Your task to perform on an android device: turn notification dots off Image 0: 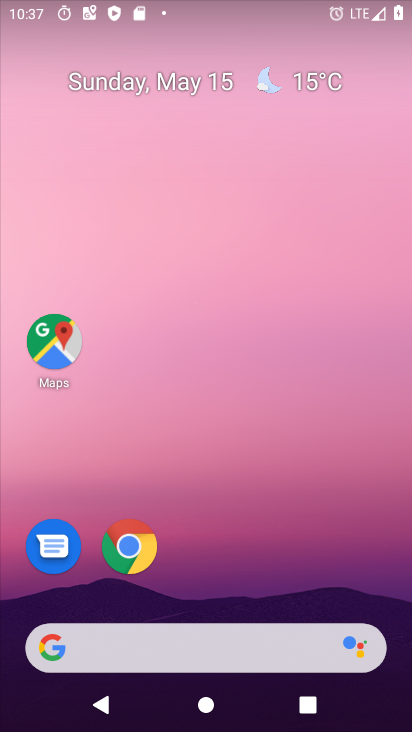
Step 0: drag from (282, 558) to (223, 34)
Your task to perform on an android device: turn notification dots off Image 1: 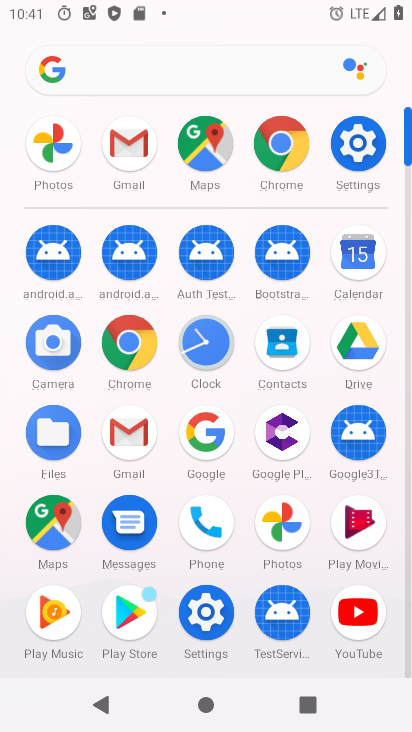
Step 1: click (354, 151)
Your task to perform on an android device: turn notification dots off Image 2: 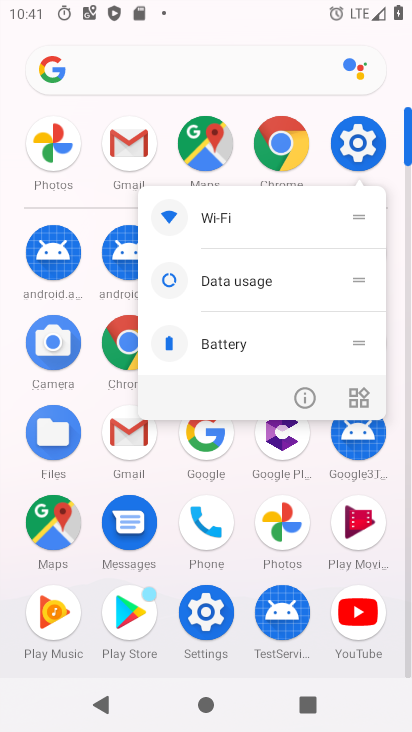
Step 2: click (358, 147)
Your task to perform on an android device: turn notification dots off Image 3: 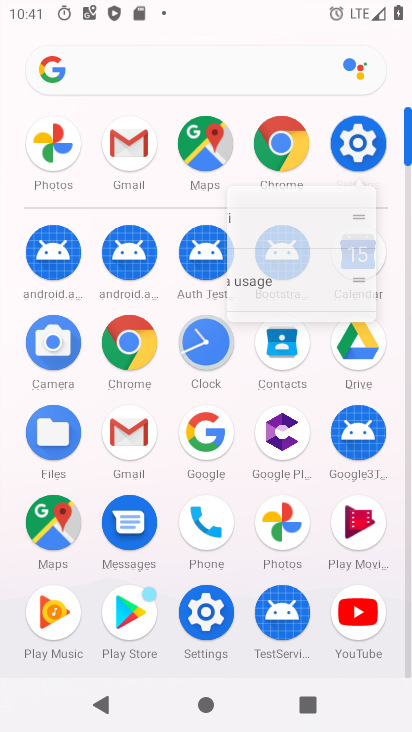
Step 3: click (358, 147)
Your task to perform on an android device: turn notification dots off Image 4: 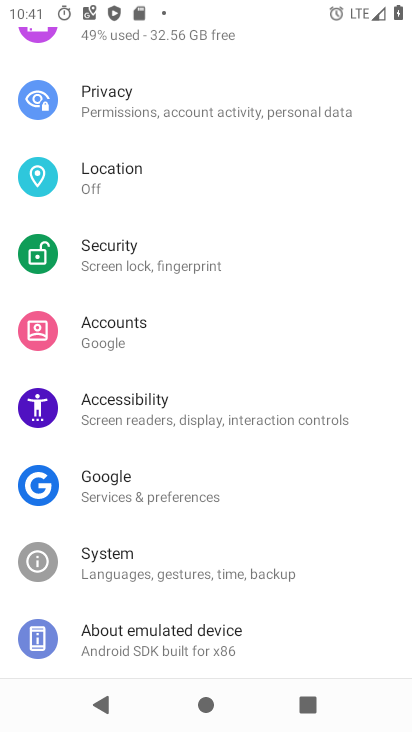
Step 4: click (354, 169)
Your task to perform on an android device: turn notification dots off Image 5: 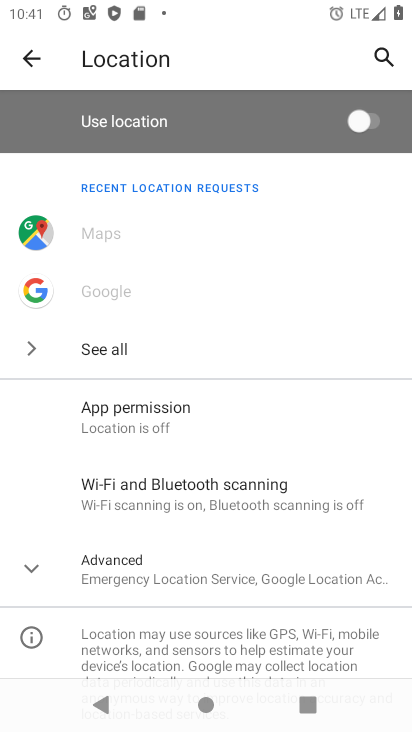
Step 5: click (36, 63)
Your task to perform on an android device: turn notification dots off Image 6: 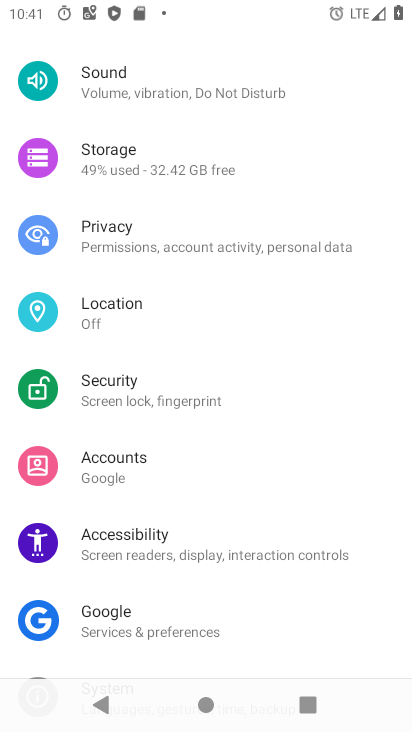
Step 6: drag from (148, 263) to (173, 489)
Your task to perform on an android device: turn notification dots off Image 7: 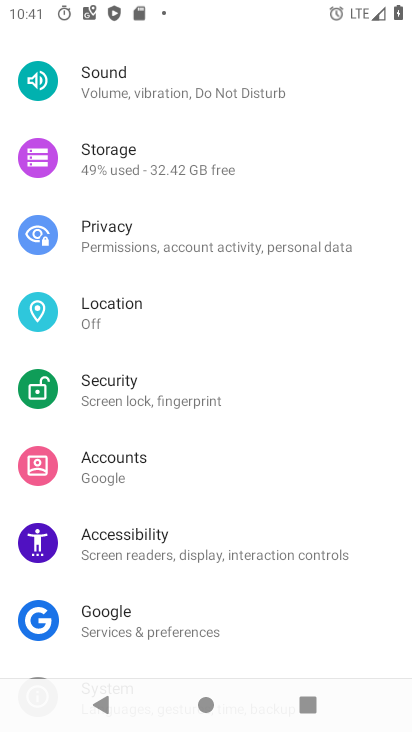
Step 7: drag from (88, 174) to (186, 541)
Your task to perform on an android device: turn notification dots off Image 8: 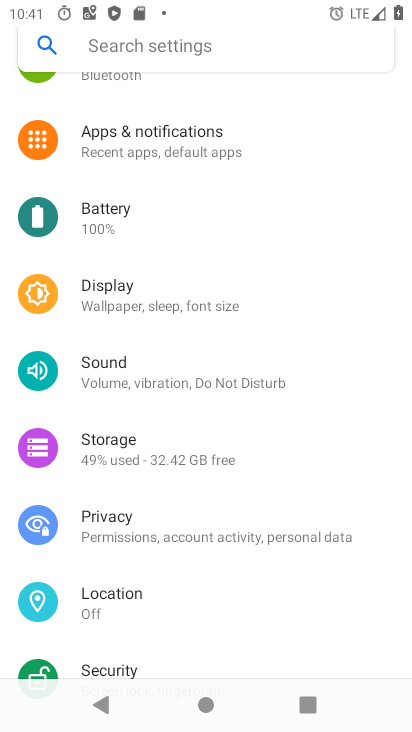
Step 8: drag from (143, 243) to (228, 610)
Your task to perform on an android device: turn notification dots off Image 9: 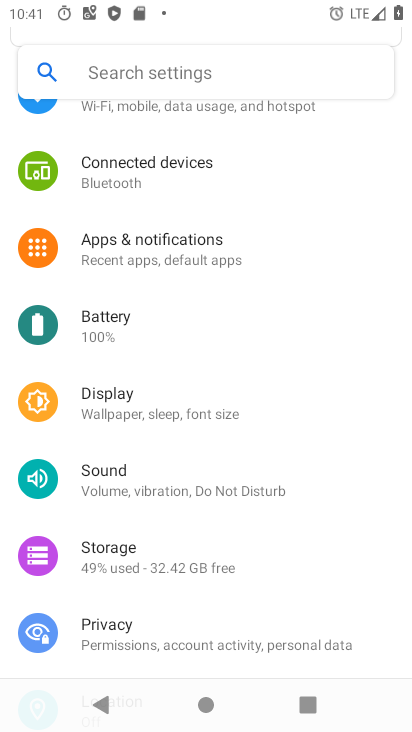
Step 9: click (144, 245)
Your task to perform on an android device: turn notification dots off Image 10: 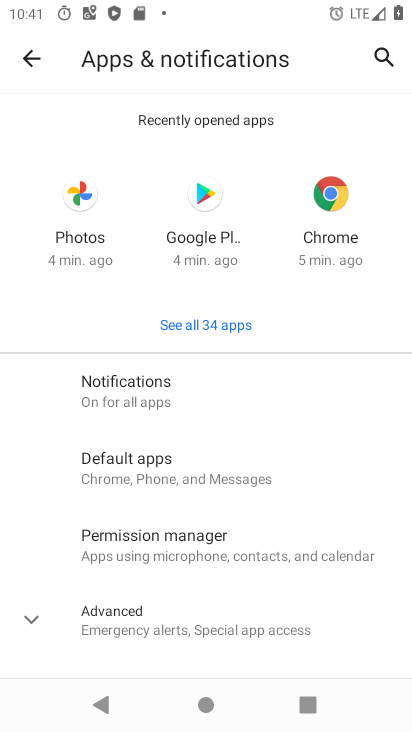
Step 10: click (121, 386)
Your task to perform on an android device: turn notification dots off Image 11: 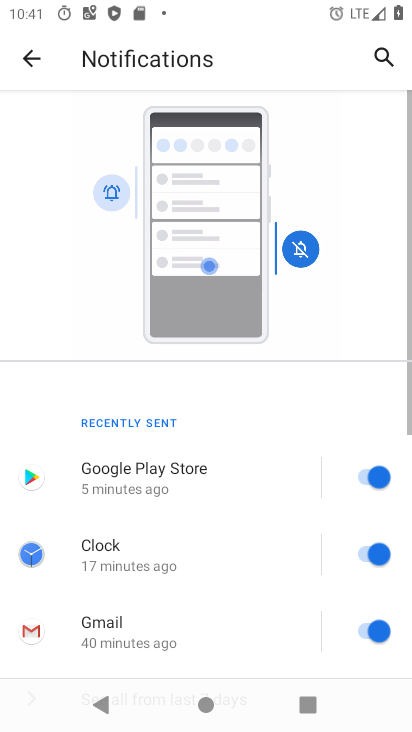
Step 11: drag from (192, 538) to (152, 138)
Your task to perform on an android device: turn notification dots off Image 12: 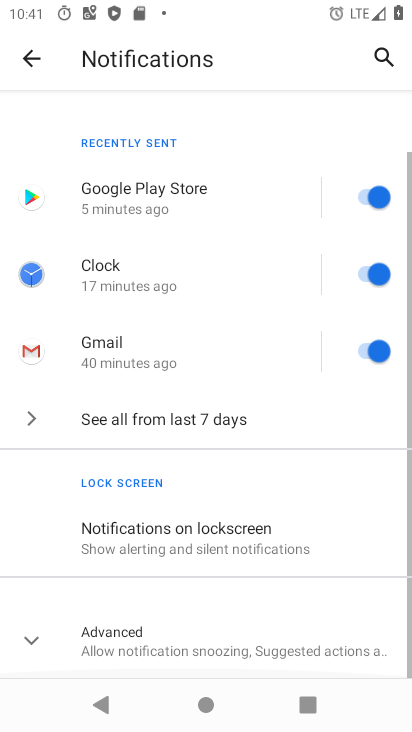
Step 12: drag from (222, 381) to (228, 52)
Your task to perform on an android device: turn notification dots off Image 13: 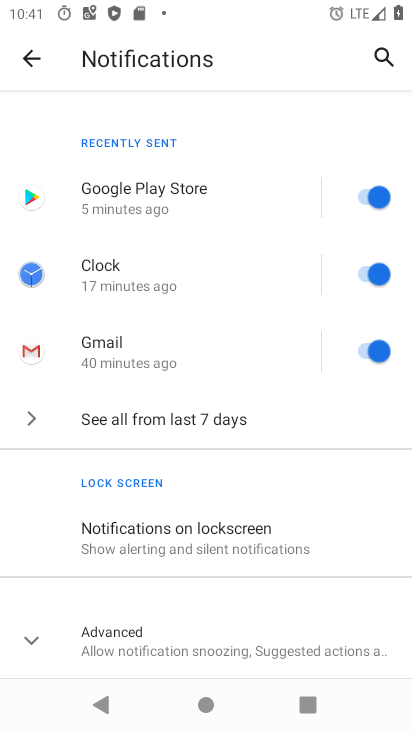
Step 13: click (119, 638)
Your task to perform on an android device: turn notification dots off Image 14: 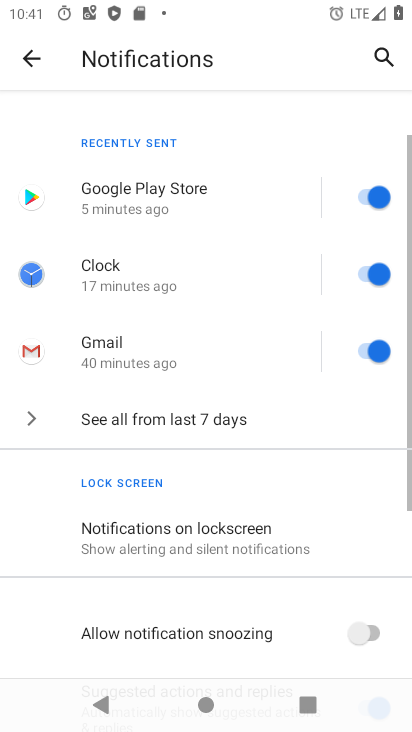
Step 14: drag from (240, 579) to (186, 74)
Your task to perform on an android device: turn notification dots off Image 15: 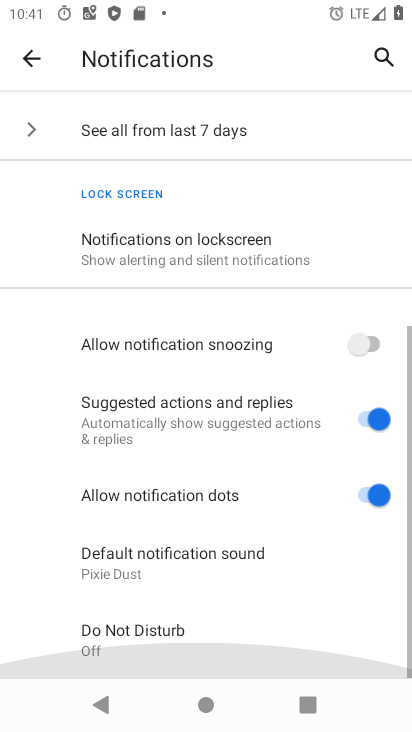
Step 15: drag from (211, 392) to (203, 55)
Your task to perform on an android device: turn notification dots off Image 16: 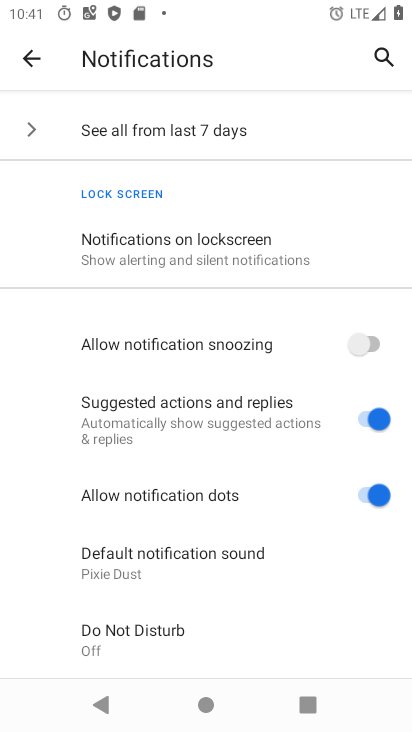
Step 16: click (375, 488)
Your task to perform on an android device: turn notification dots off Image 17: 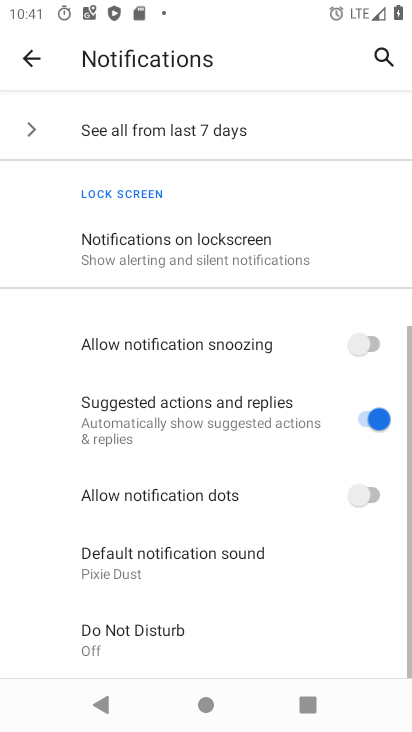
Step 17: task complete